Your task to perform on an android device: Add "logitech g pro" to the cart on amazon, then select checkout. Image 0: 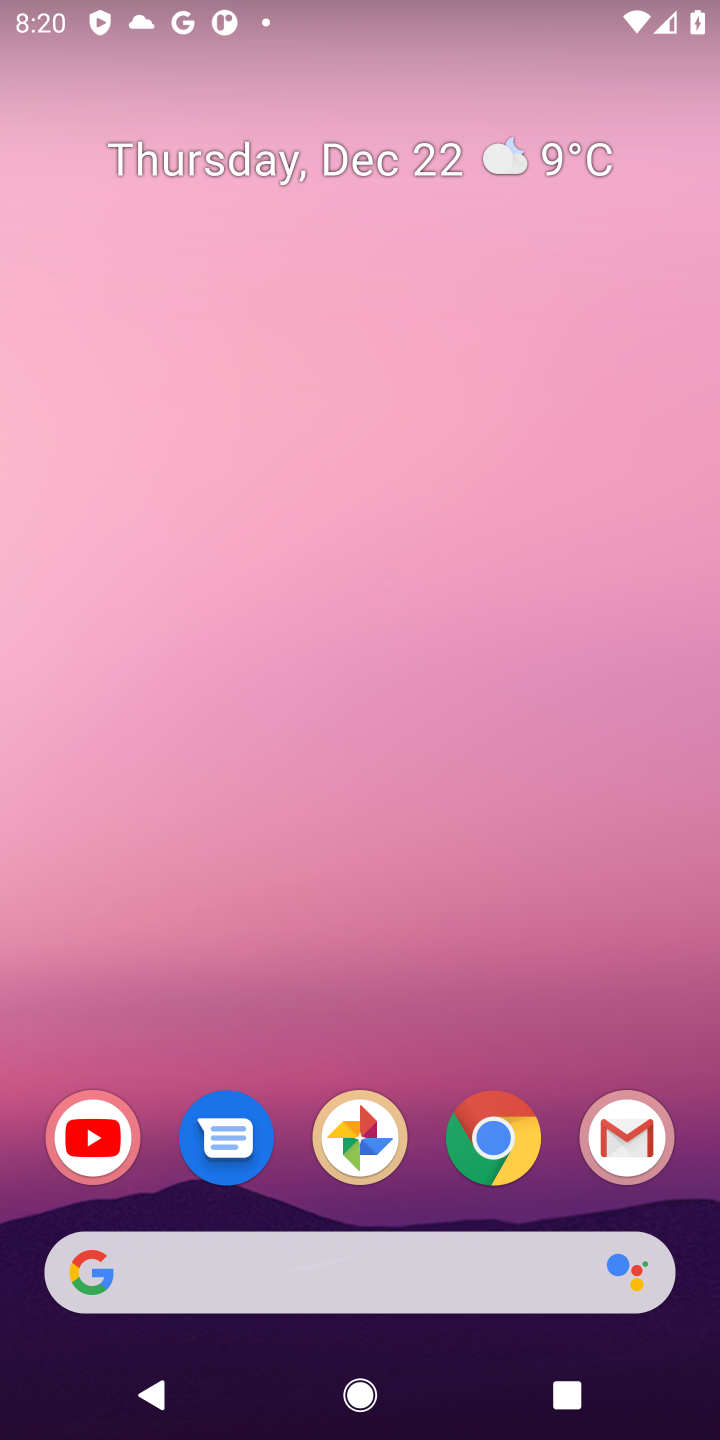
Step 0: click (492, 1152)
Your task to perform on an android device: Add "logitech g pro" to the cart on amazon, then select checkout. Image 1: 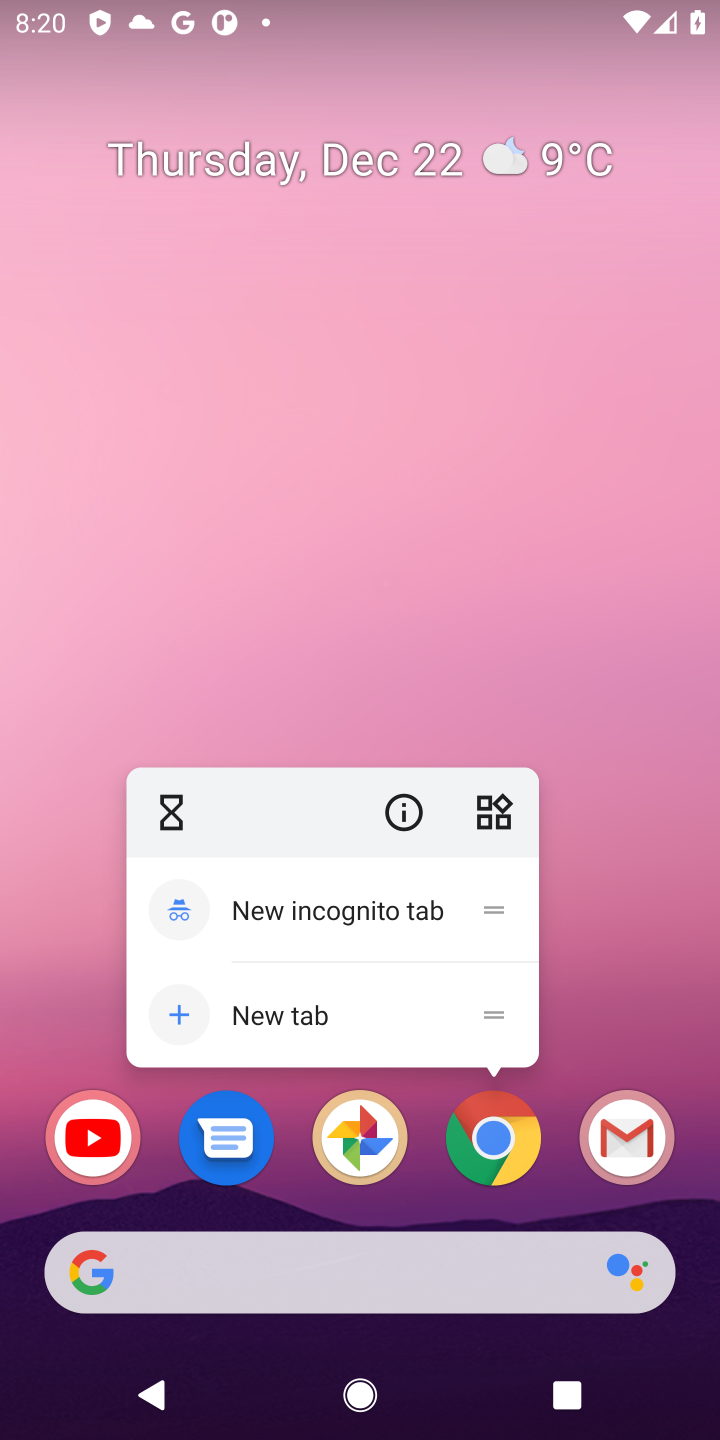
Step 1: click (495, 1162)
Your task to perform on an android device: Add "logitech g pro" to the cart on amazon, then select checkout. Image 2: 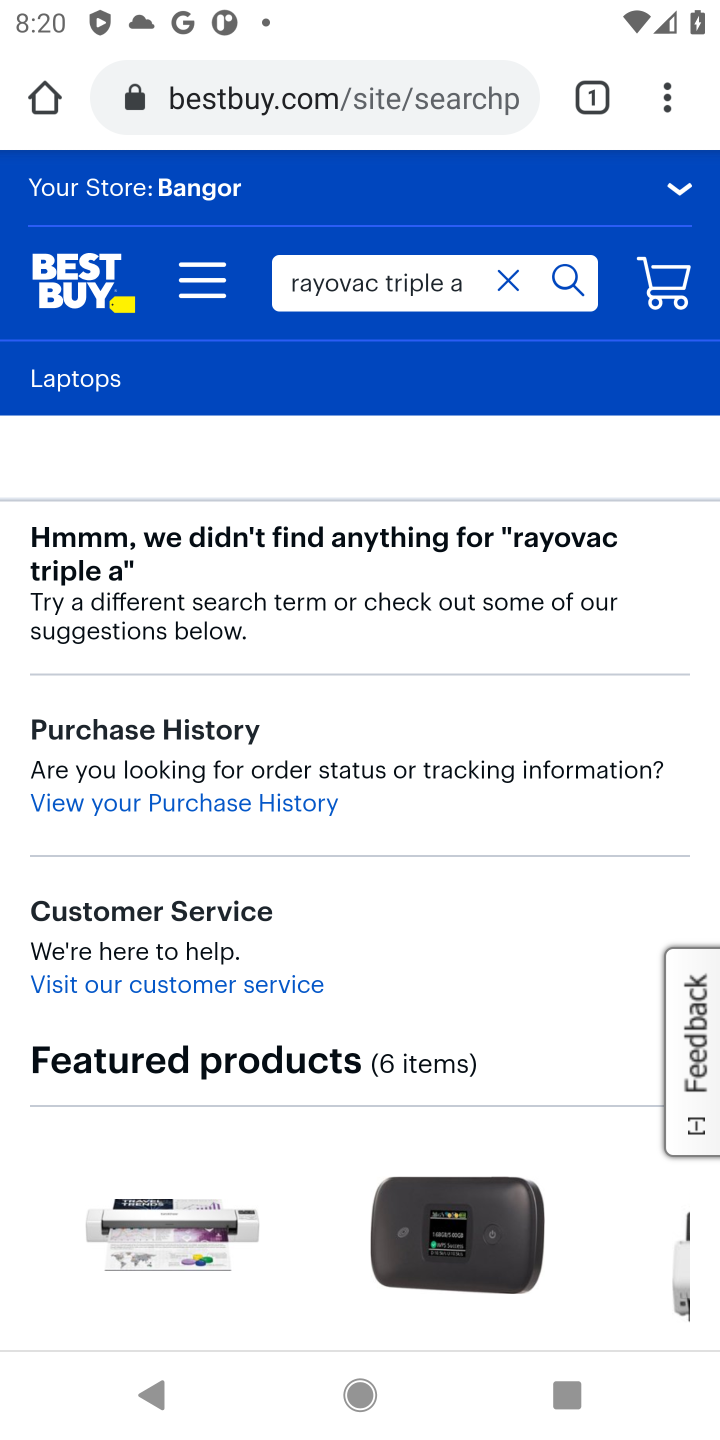
Step 2: click (286, 92)
Your task to perform on an android device: Add "logitech g pro" to the cart on amazon, then select checkout. Image 3: 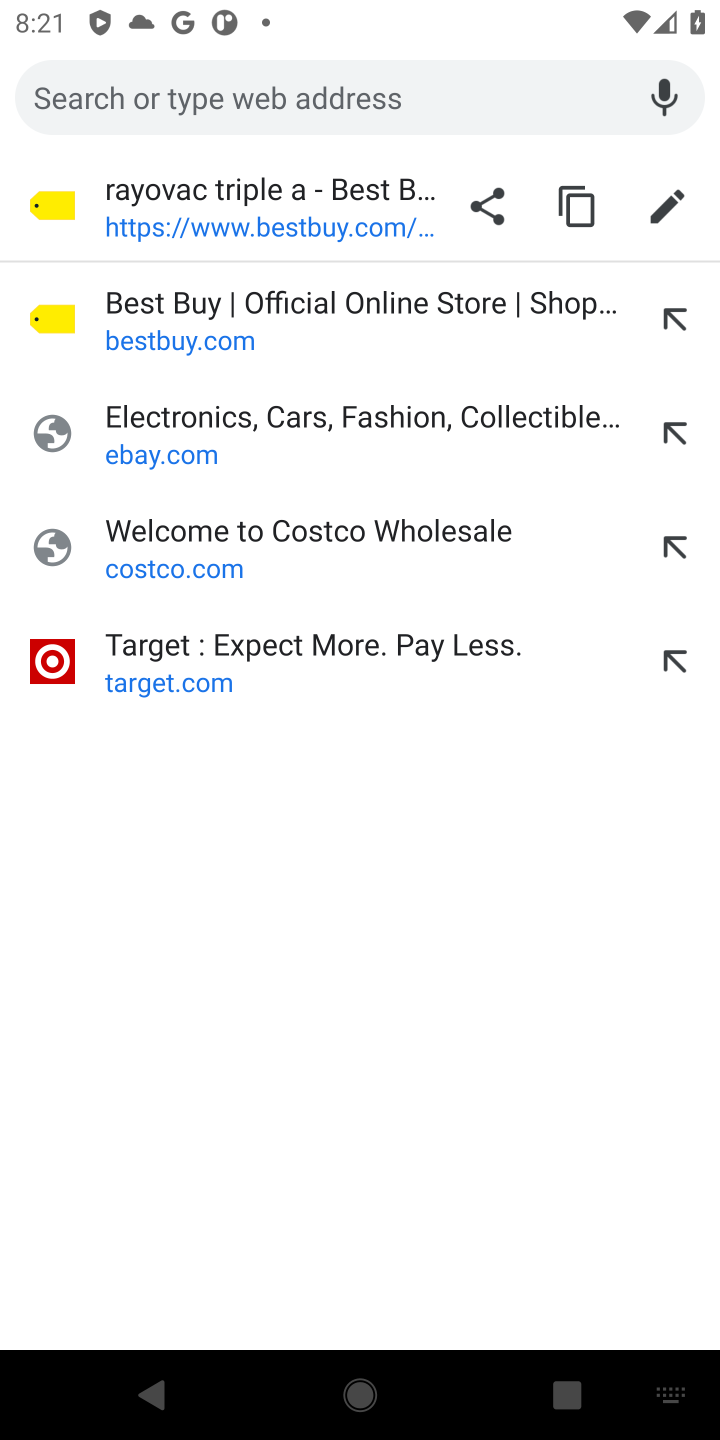
Step 3: type "amazon"
Your task to perform on an android device: Add "logitech g pro" to the cart on amazon, then select checkout. Image 4: 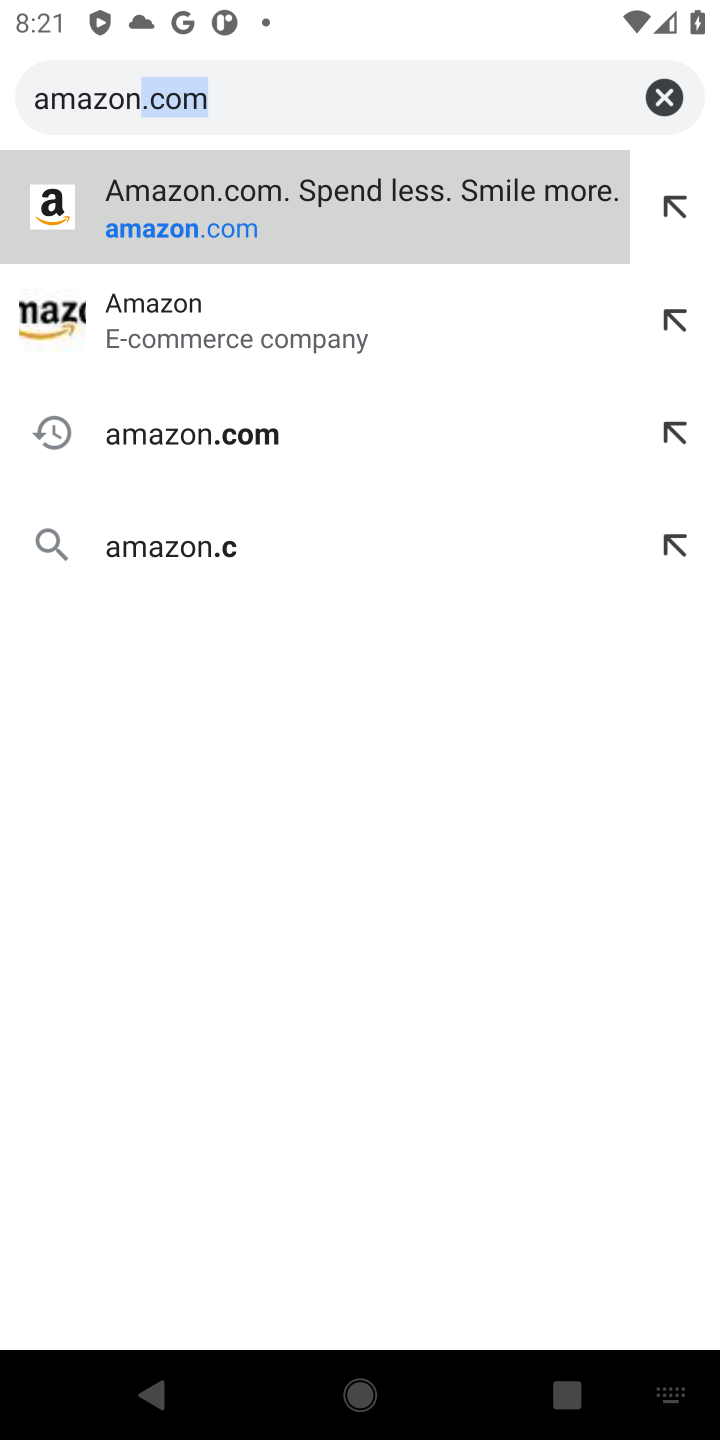
Step 4: click (444, 213)
Your task to perform on an android device: Add "logitech g pro" to the cart on amazon, then select checkout. Image 5: 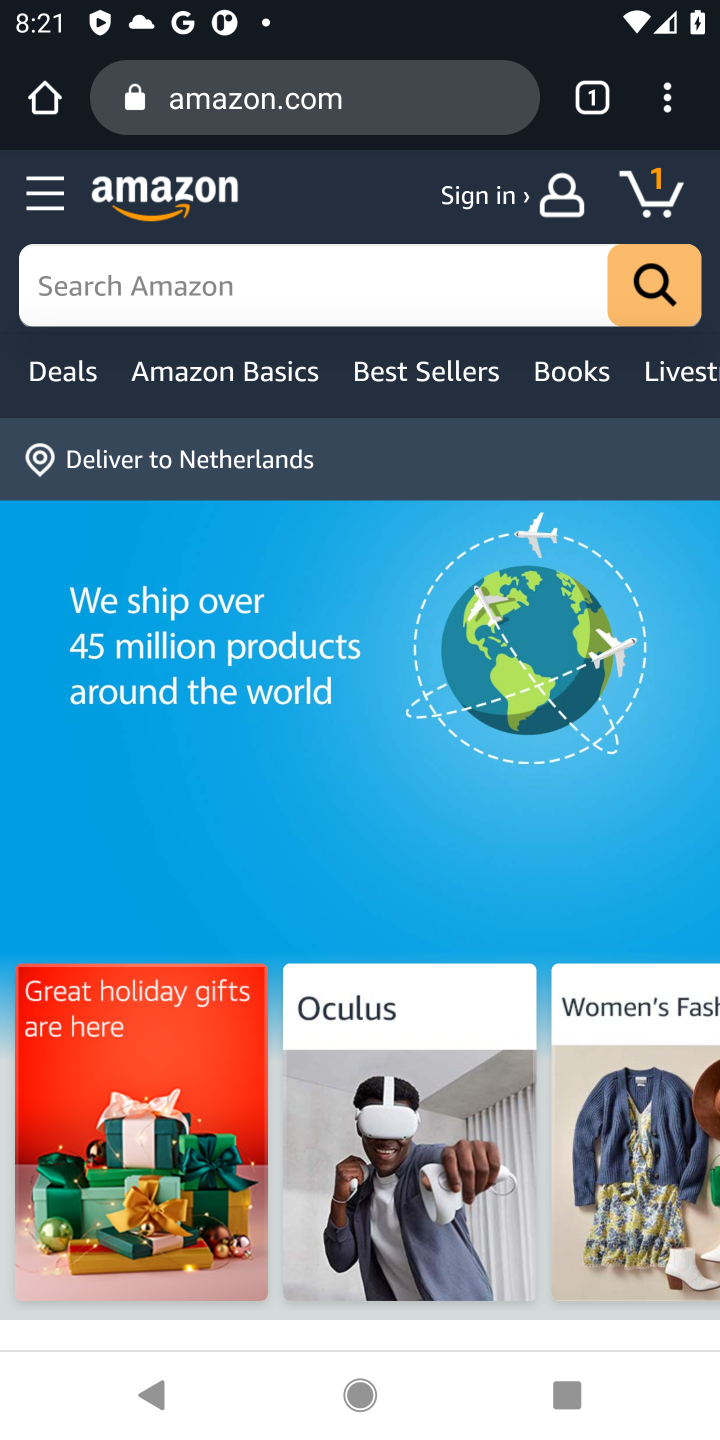
Step 5: click (169, 263)
Your task to perform on an android device: Add "logitech g pro" to the cart on amazon, then select checkout. Image 6: 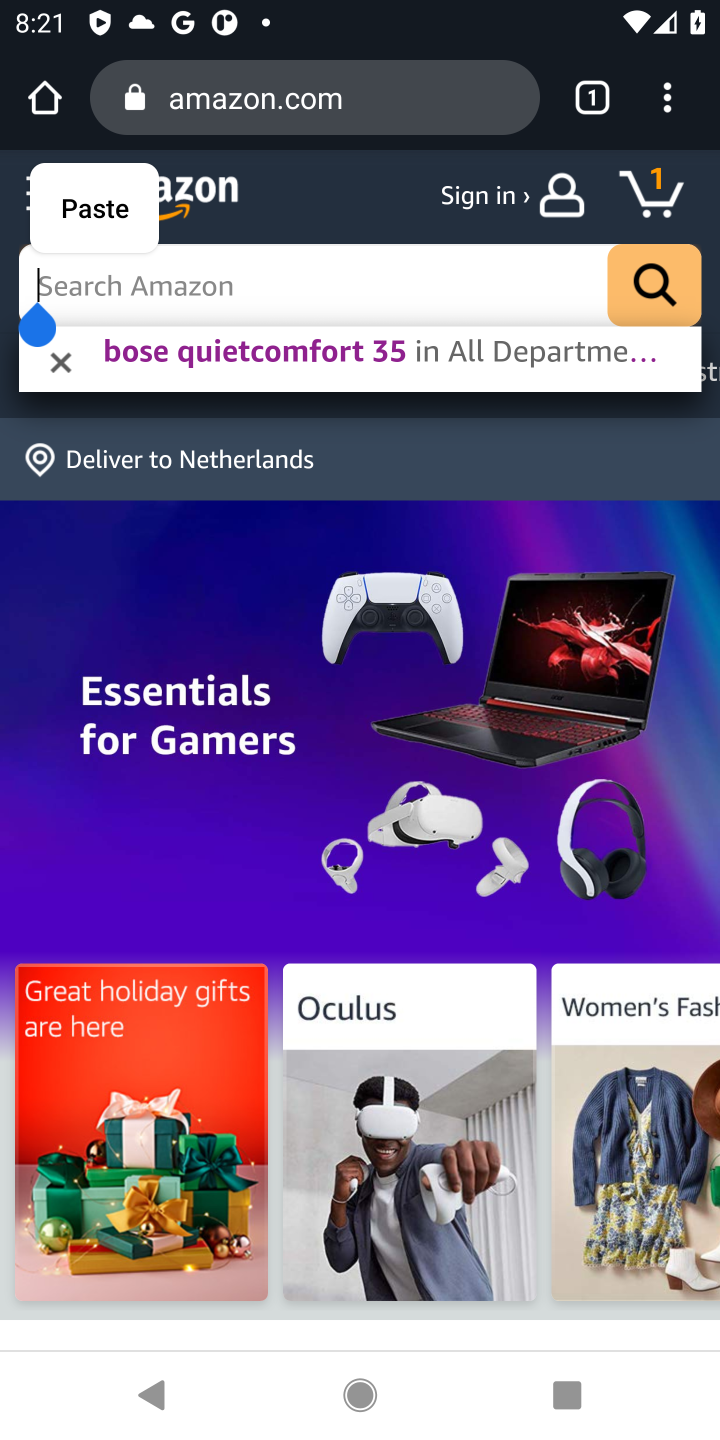
Step 6: type "logitech g pro"
Your task to perform on an android device: Add "logitech g pro" to the cart on amazon, then select checkout. Image 7: 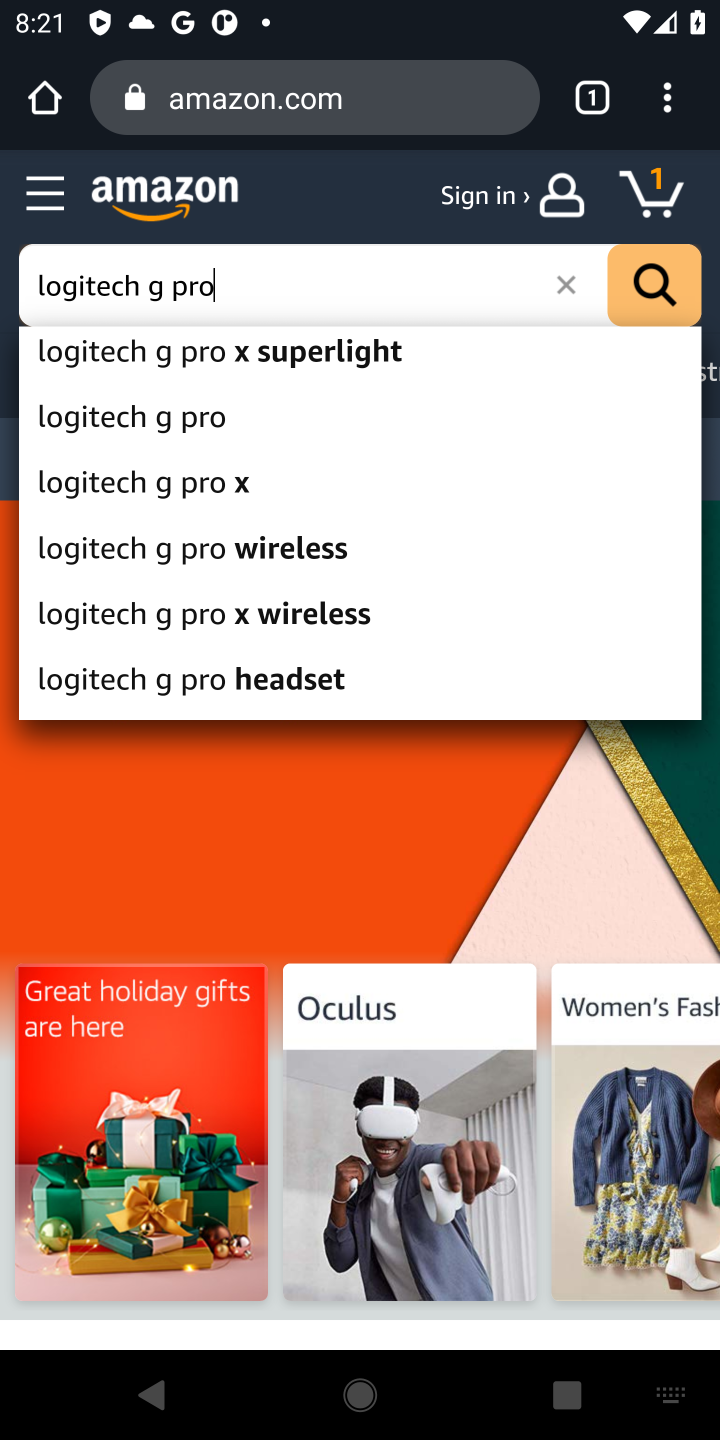
Step 7: click (635, 296)
Your task to perform on an android device: Add "logitech g pro" to the cart on amazon, then select checkout. Image 8: 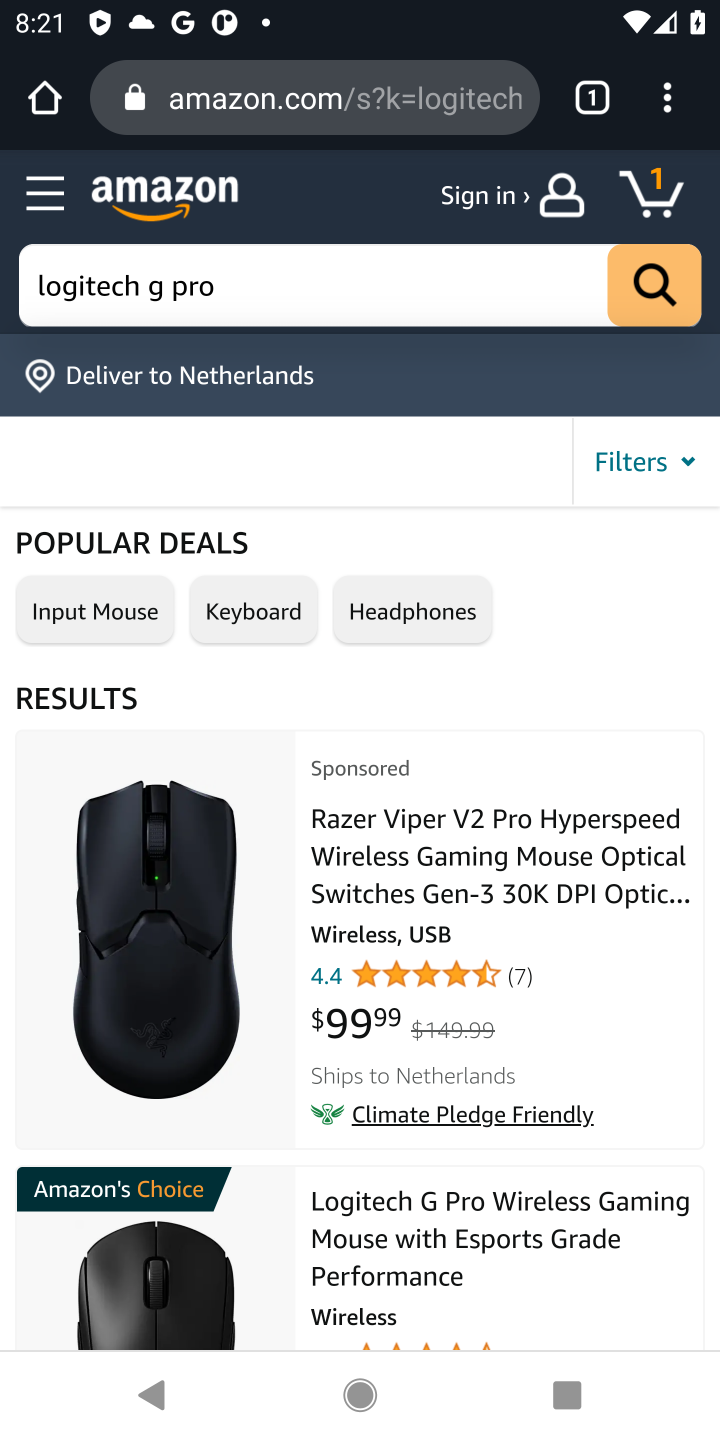
Step 8: drag from (497, 1099) to (470, 695)
Your task to perform on an android device: Add "logitech g pro" to the cart on amazon, then select checkout. Image 9: 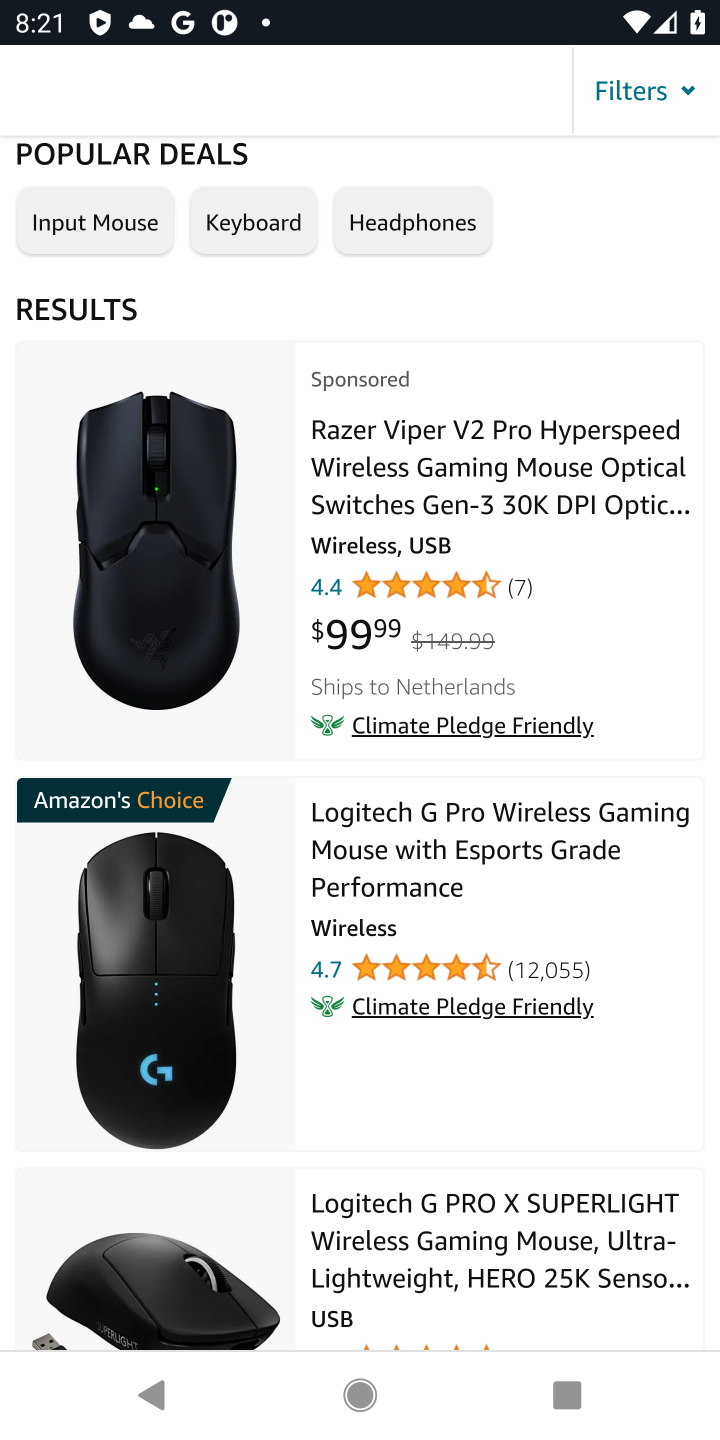
Step 9: click (391, 872)
Your task to perform on an android device: Add "logitech g pro" to the cart on amazon, then select checkout. Image 10: 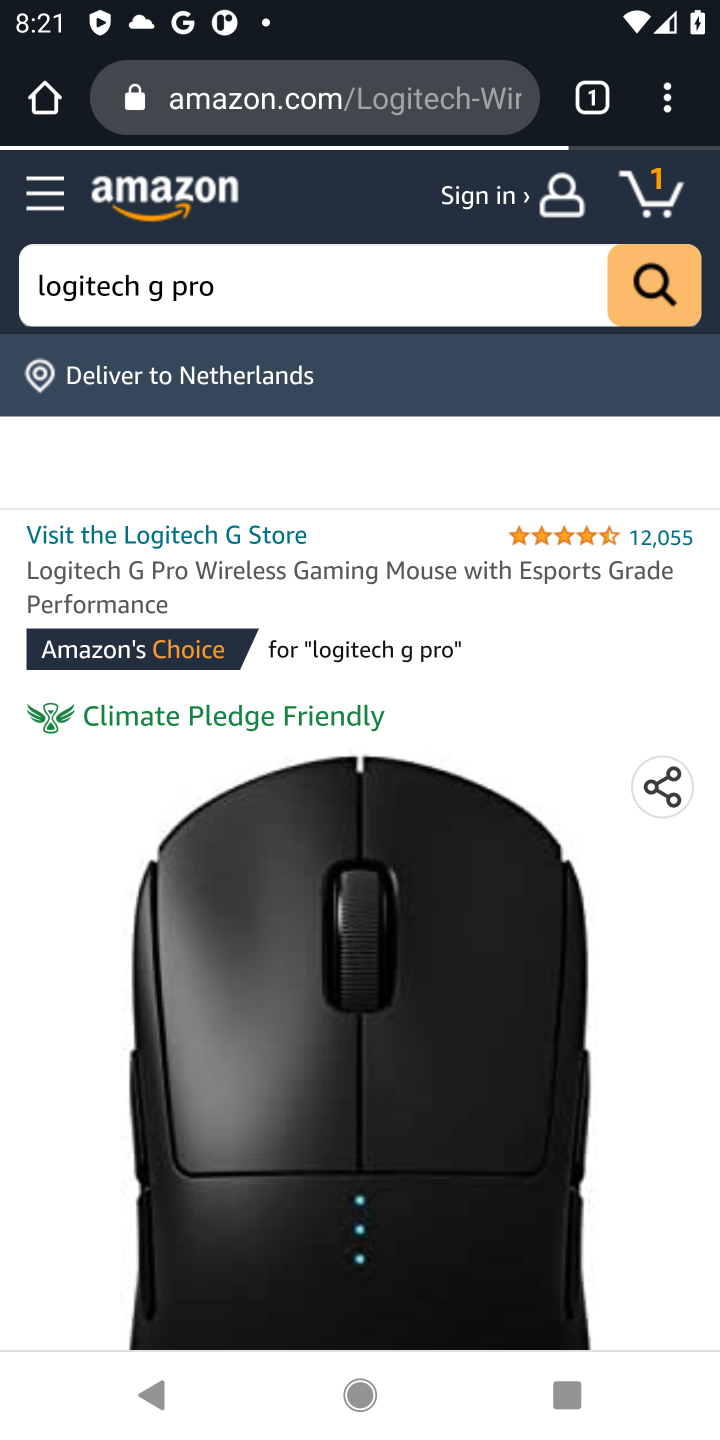
Step 10: task complete